Your task to perform on an android device: turn on airplane mode Image 0: 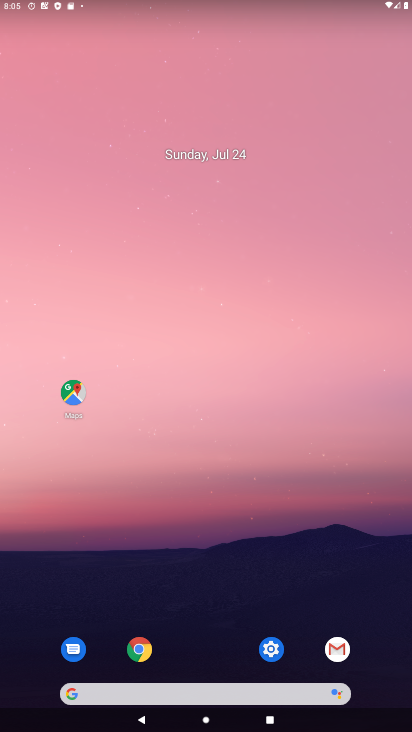
Step 0: click (266, 657)
Your task to perform on an android device: turn on airplane mode Image 1: 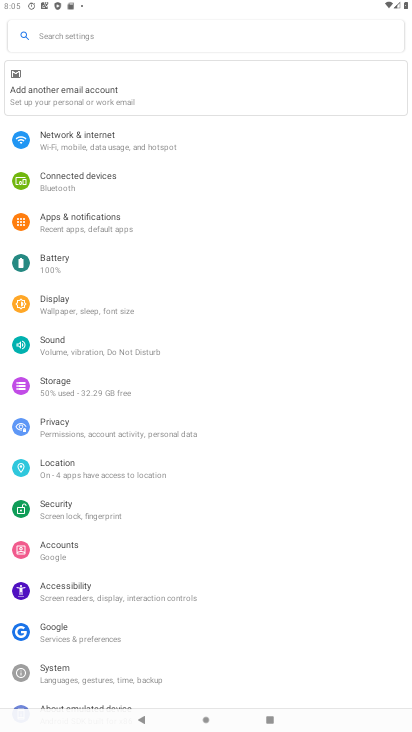
Step 1: click (108, 147)
Your task to perform on an android device: turn on airplane mode Image 2: 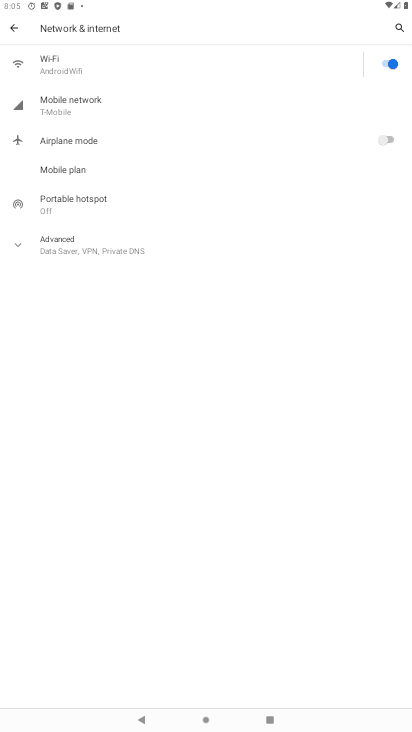
Step 2: click (100, 152)
Your task to perform on an android device: turn on airplane mode Image 3: 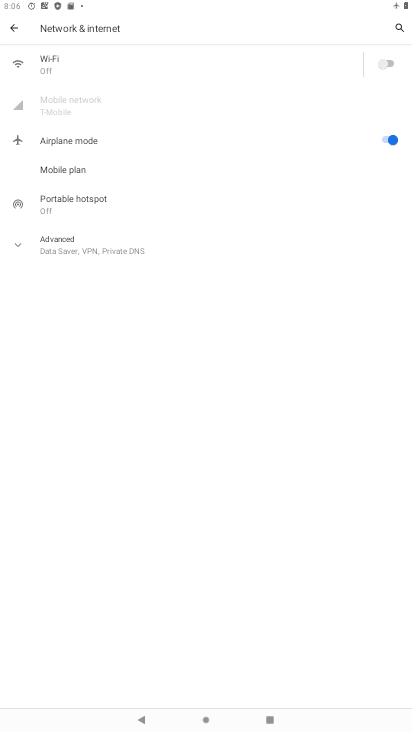
Step 3: task complete